Your task to perform on an android device: What's on my calendar today? Image 0: 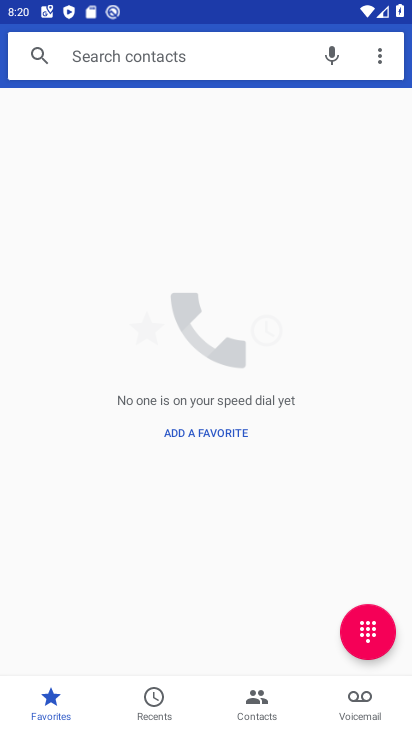
Step 0: press back button
Your task to perform on an android device: What's on my calendar today? Image 1: 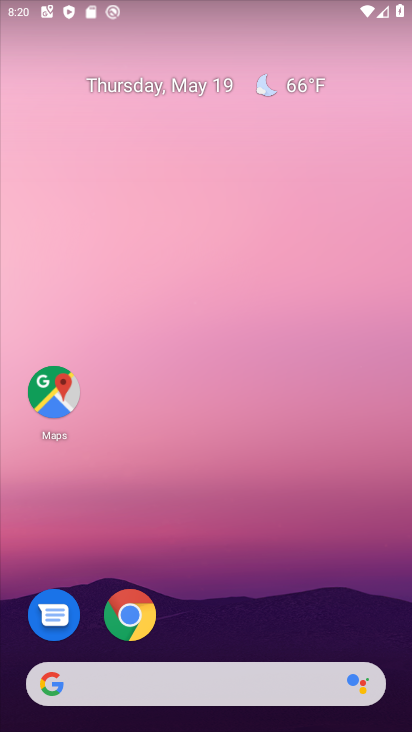
Step 1: drag from (253, 601) to (217, 66)
Your task to perform on an android device: What's on my calendar today? Image 2: 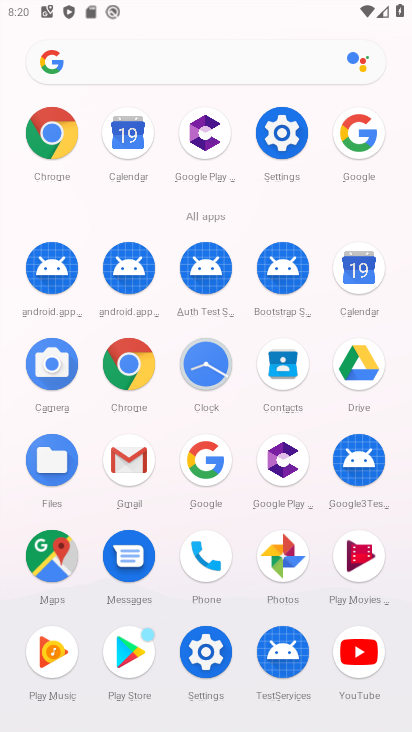
Step 2: click (128, 135)
Your task to perform on an android device: What's on my calendar today? Image 3: 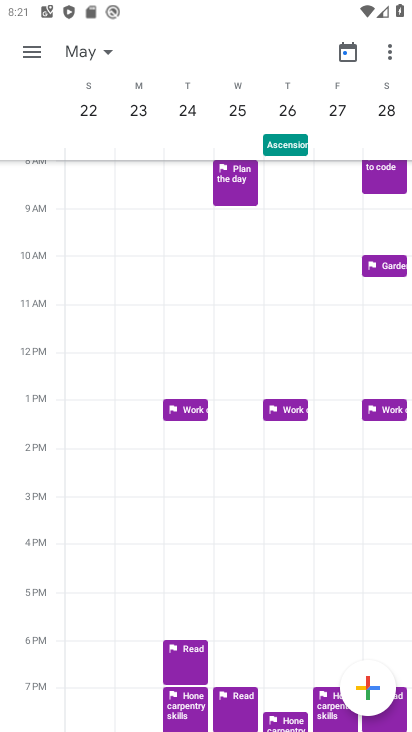
Step 3: click (347, 56)
Your task to perform on an android device: What's on my calendar today? Image 4: 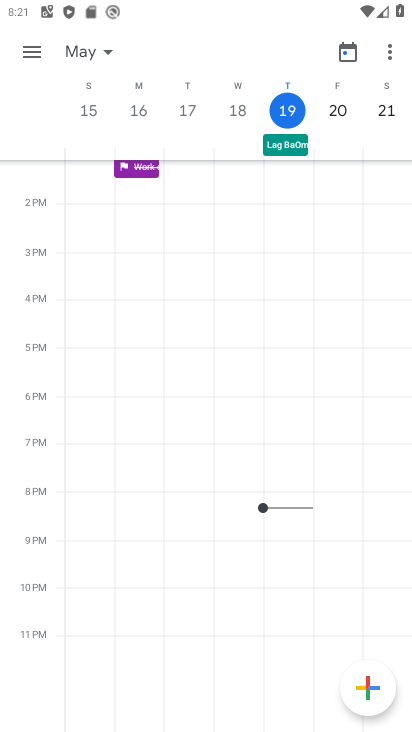
Step 4: click (28, 57)
Your task to perform on an android device: What's on my calendar today? Image 5: 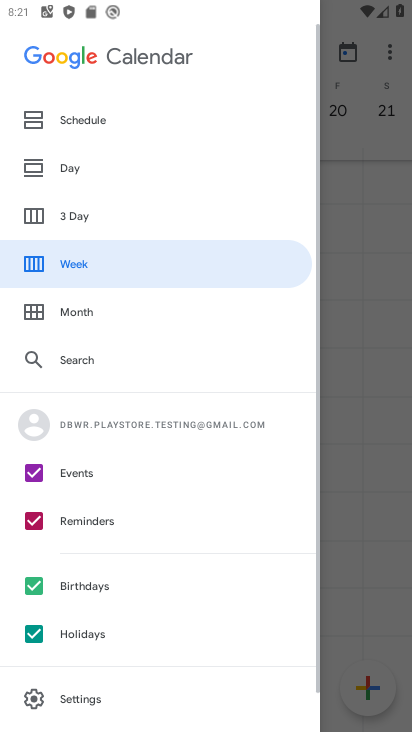
Step 5: click (83, 118)
Your task to perform on an android device: What's on my calendar today? Image 6: 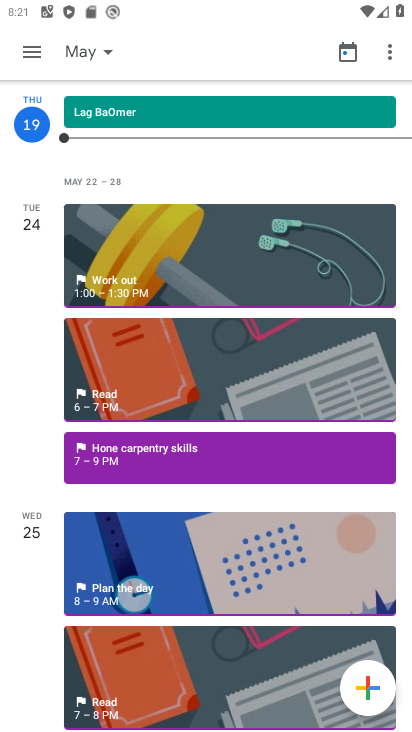
Step 6: click (114, 123)
Your task to perform on an android device: What's on my calendar today? Image 7: 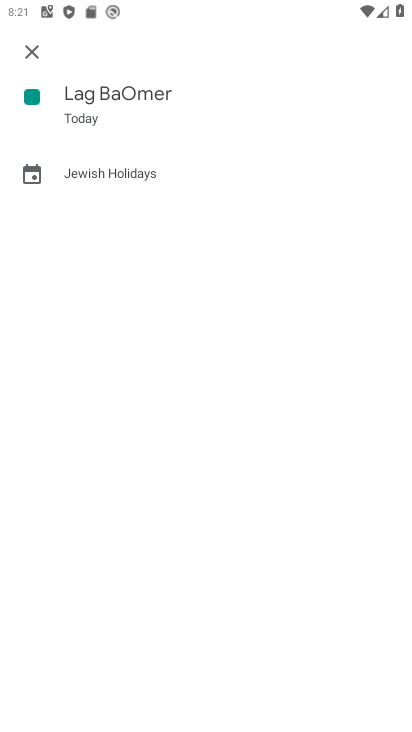
Step 7: task complete